Your task to perform on an android device: Open privacy settings Image 0: 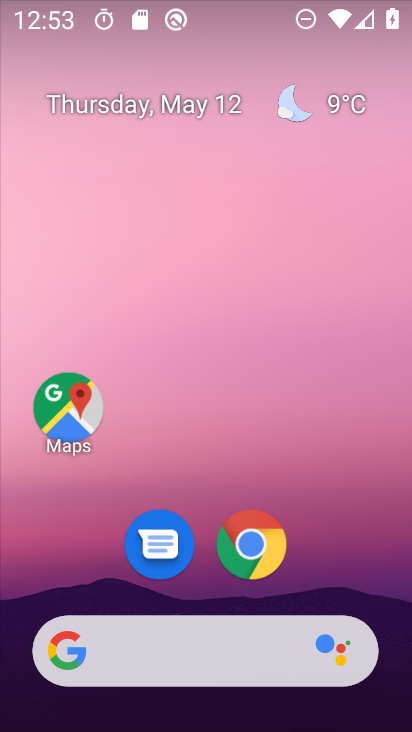
Step 0: drag from (218, 711) to (218, 229)
Your task to perform on an android device: Open privacy settings Image 1: 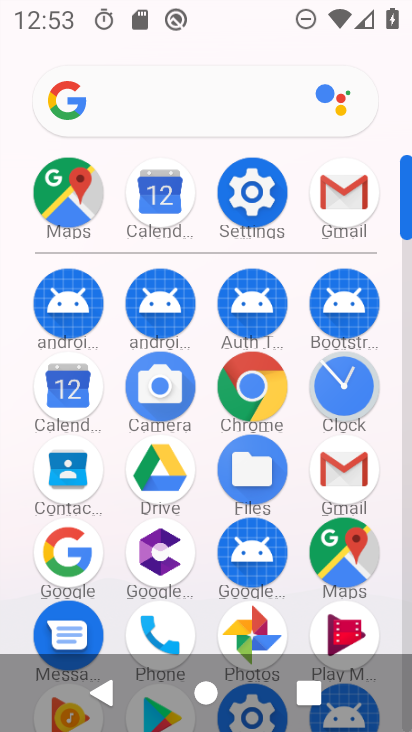
Step 1: click (259, 202)
Your task to perform on an android device: Open privacy settings Image 2: 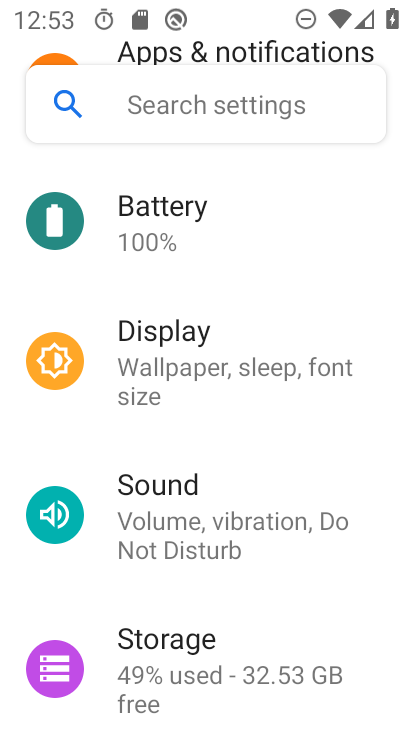
Step 2: drag from (272, 196) to (275, 577)
Your task to perform on an android device: Open privacy settings Image 3: 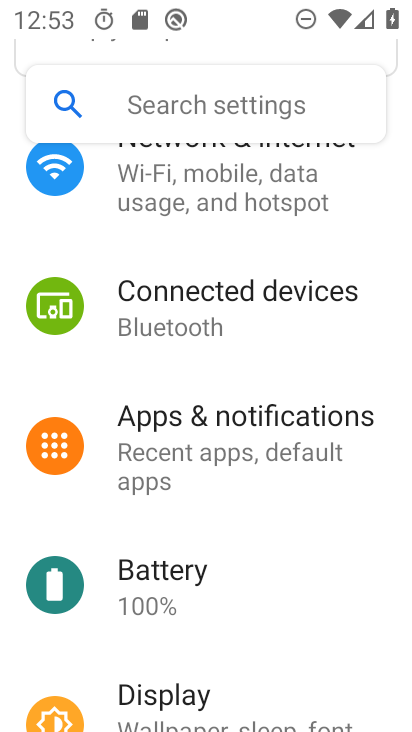
Step 3: drag from (242, 614) to (267, 267)
Your task to perform on an android device: Open privacy settings Image 4: 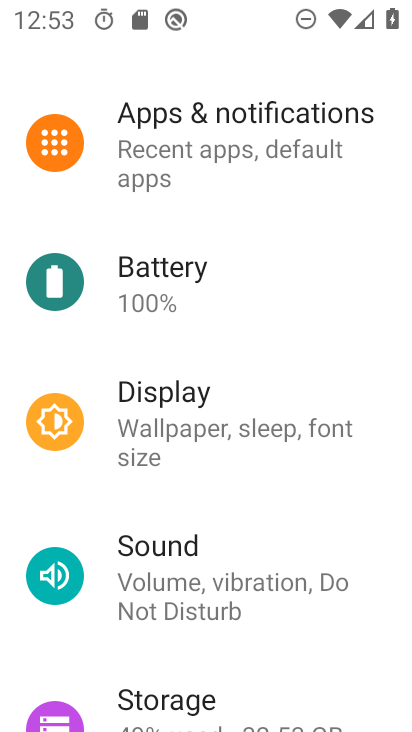
Step 4: drag from (230, 674) to (236, 280)
Your task to perform on an android device: Open privacy settings Image 5: 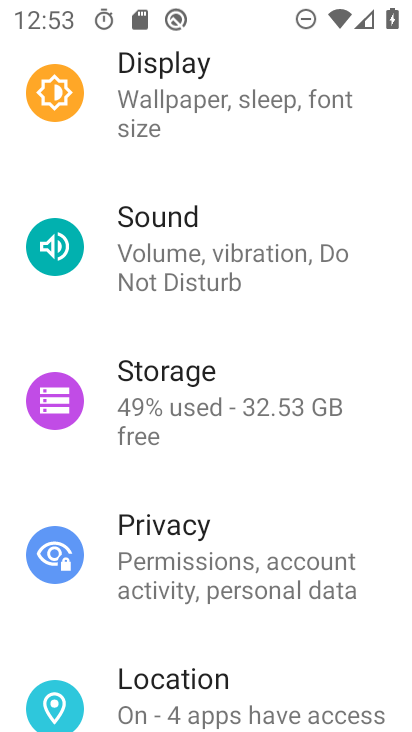
Step 5: click (177, 566)
Your task to perform on an android device: Open privacy settings Image 6: 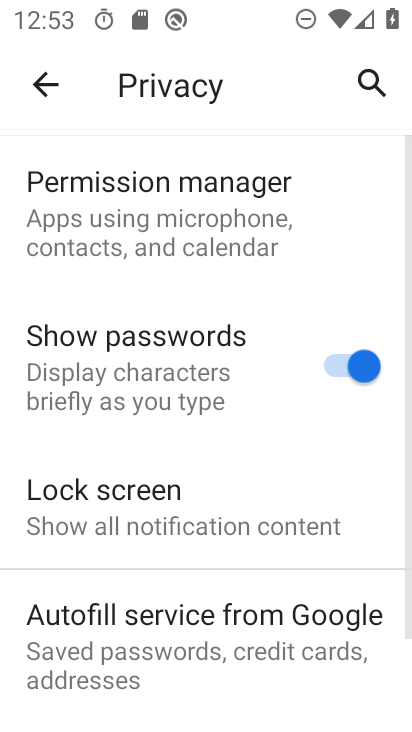
Step 6: task complete